Your task to perform on an android device: turn off wifi Image 0: 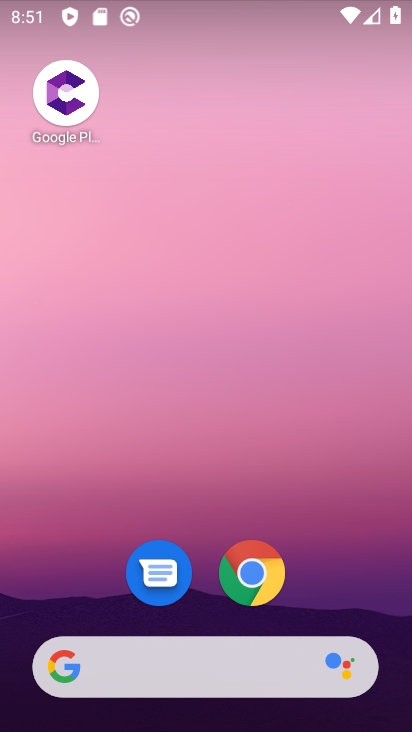
Step 0: press home button
Your task to perform on an android device: turn off wifi Image 1: 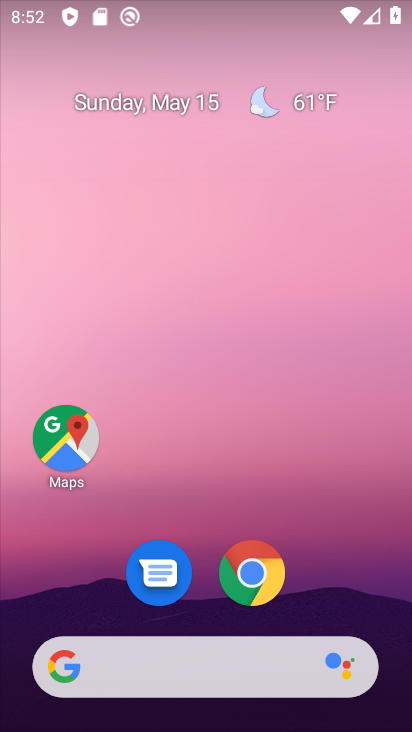
Step 1: drag from (252, 2) to (181, 536)
Your task to perform on an android device: turn off wifi Image 2: 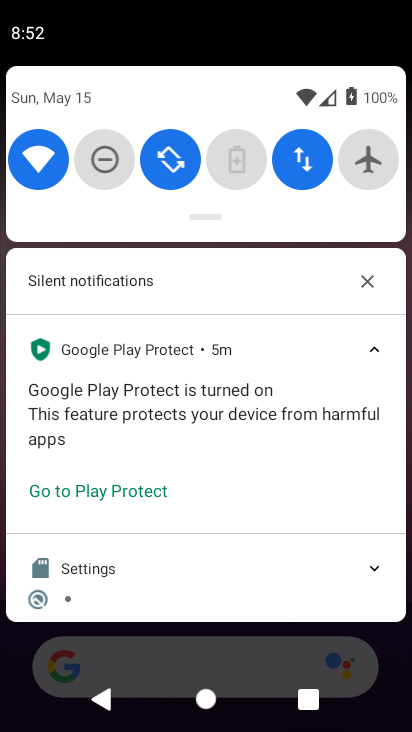
Step 2: click (23, 154)
Your task to perform on an android device: turn off wifi Image 3: 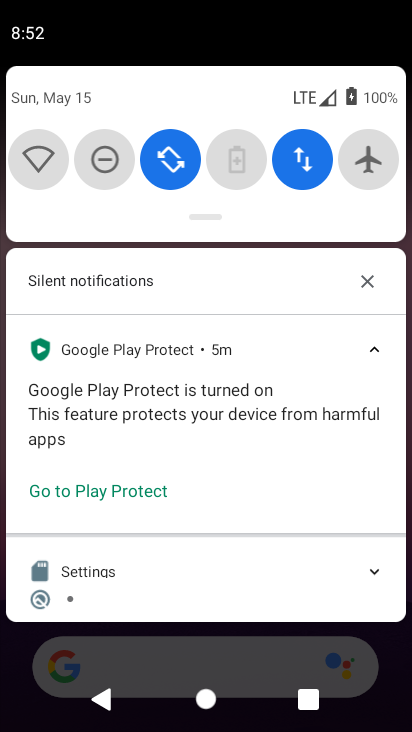
Step 3: task complete